Your task to perform on an android device: install app "Microsoft Authenticator" Image 0: 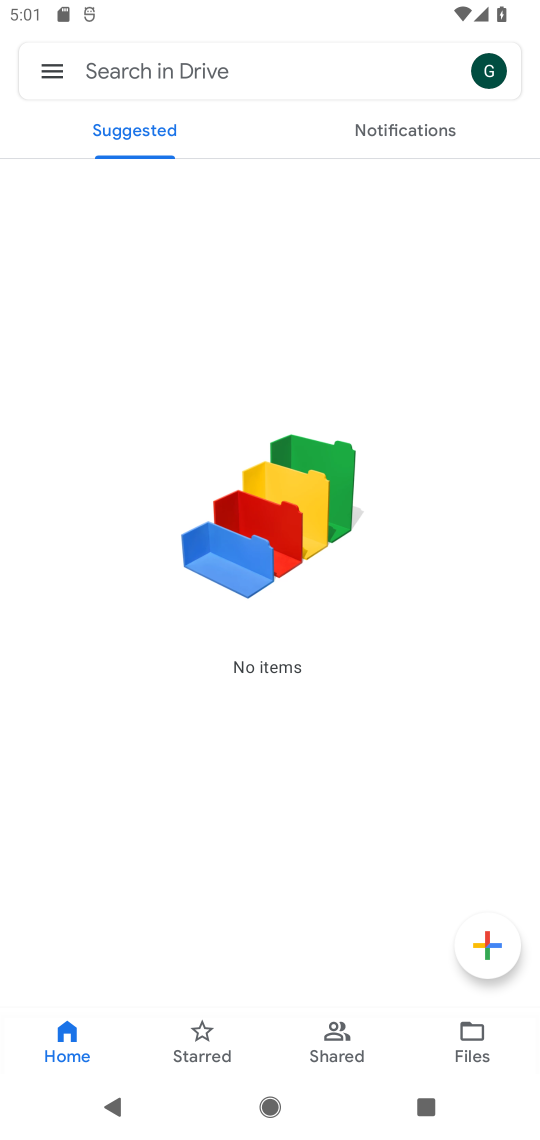
Step 0: press home button
Your task to perform on an android device: install app "Microsoft Authenticator" Image 1: 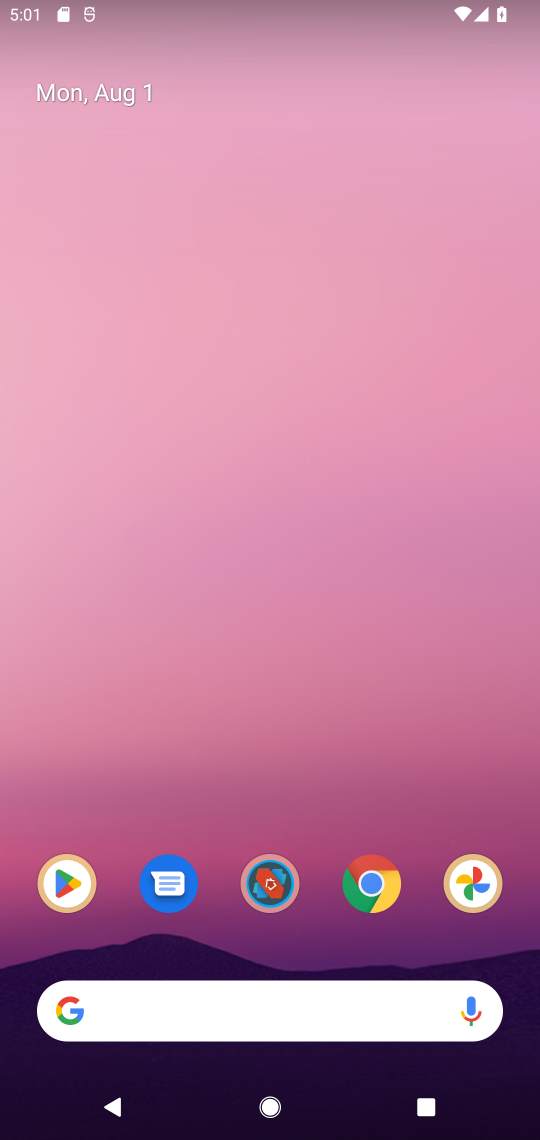
Step 1: drag from (231, 845) to (233, 703)
Your task to perform on an android device: install app "Microsoft Authenticator" Image 2: 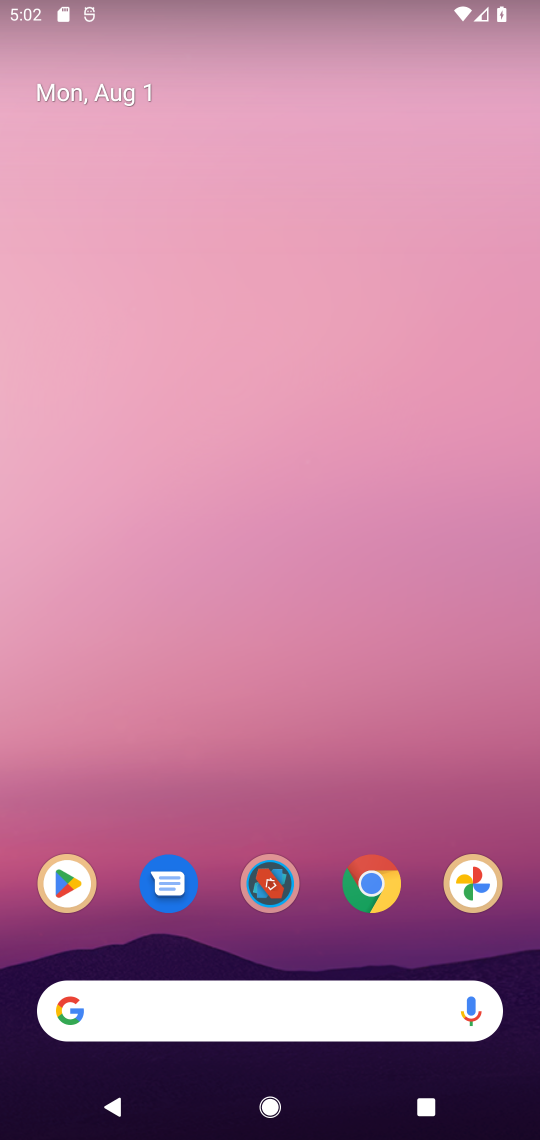
Step 2: drag from (187, 956) to (187, 248)
Your task to perform on an android device: install app "Microsoft Authenticator" Image 3: 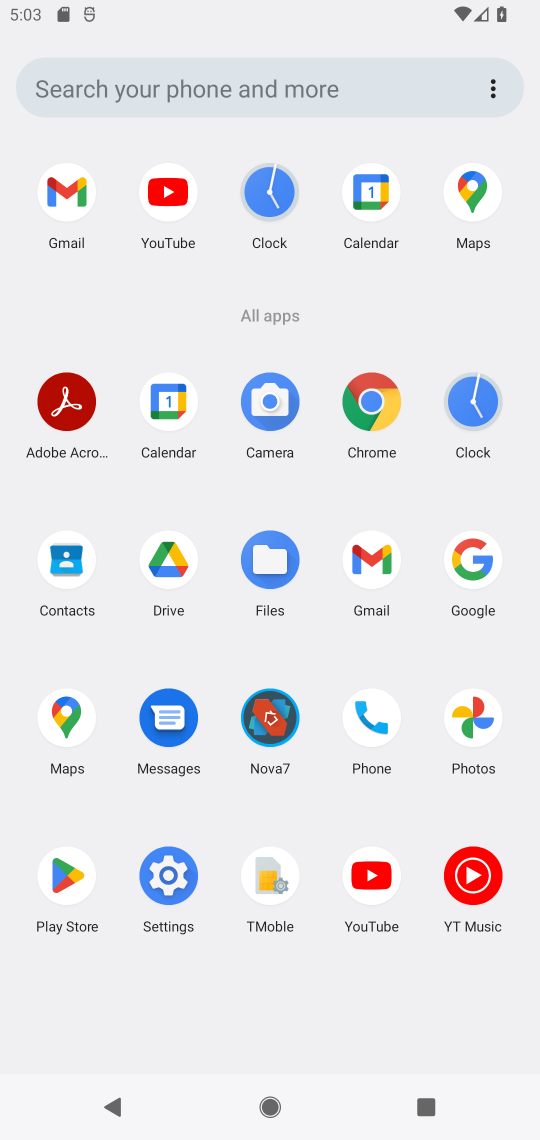
Step 3: click (63, 861)
Your task to perform on an android device: install app "Microsoft Authenticator" Image 4: 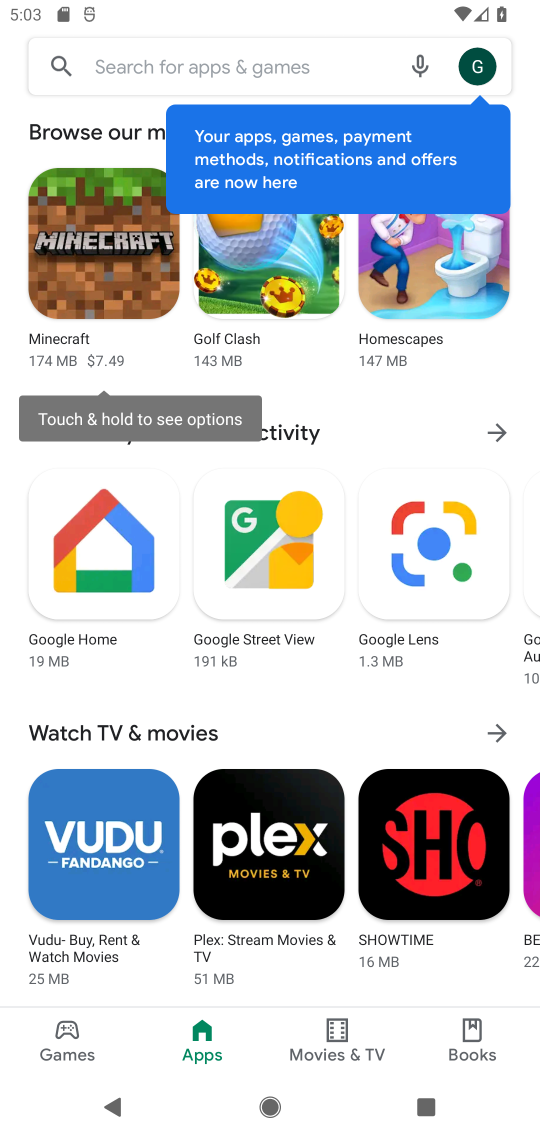
Step 4: click (107, 63)
Your task to perform on an android device: install app "Microsoft Authenticator" Image 5: 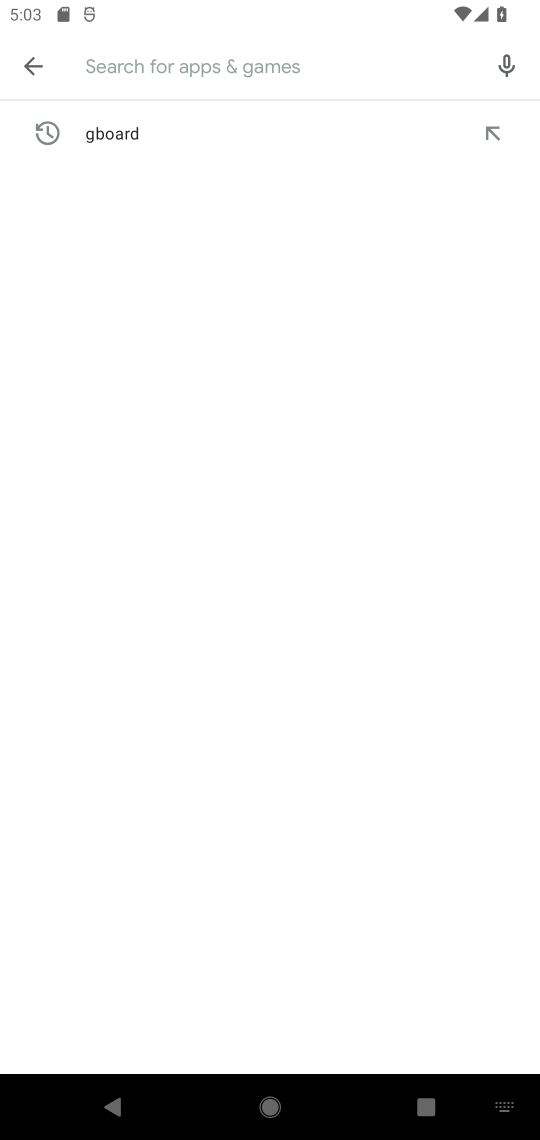
Step 5: type "Microsoft Authenticator"
Your task to perform on an android device: install app "Microsoft Authenticator" Image 6: 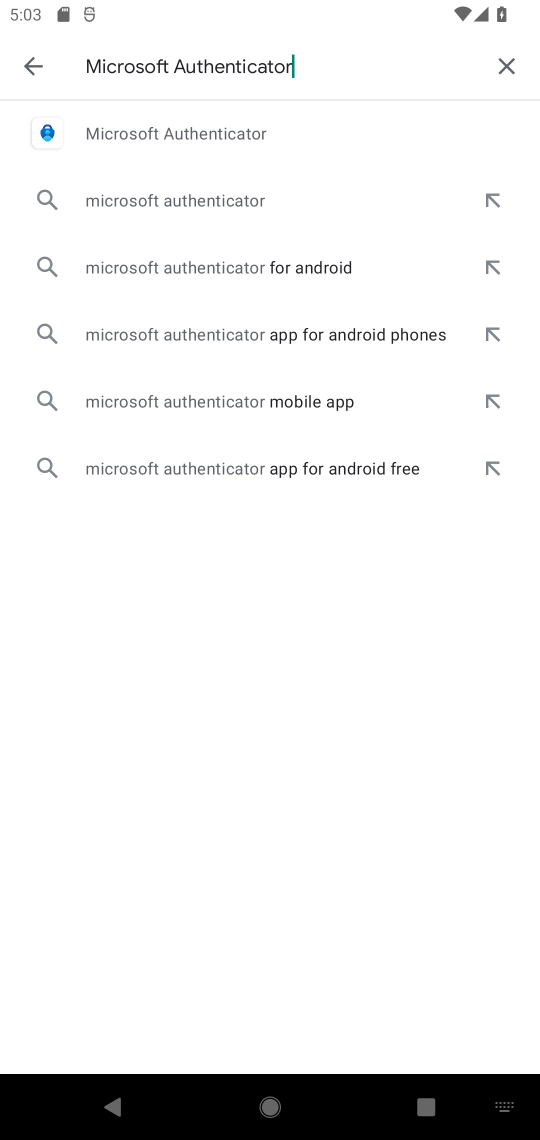
Step 6: click (172, 132)
Your task to perform on an android device: install app "Microsoft Authenticator" Image 7: 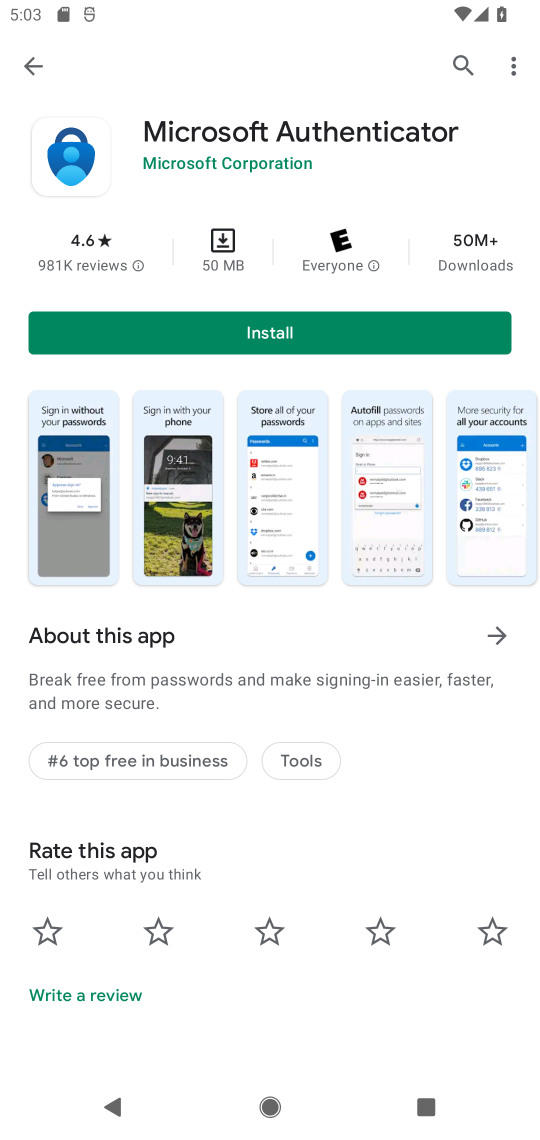
Step 7: click (230, 329)
Your task to perform on an android device: install app "Microsoft Authenticator" Image 8: 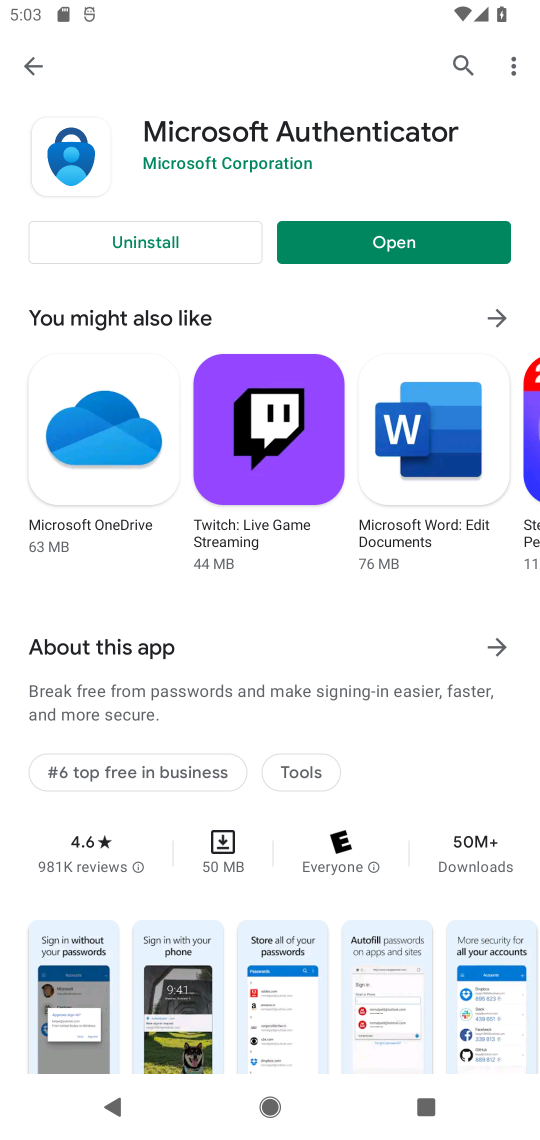
Step 8: click (374, 229)
Your task to perform on an android device: install app "Microsoft Authenticator" Image 9: 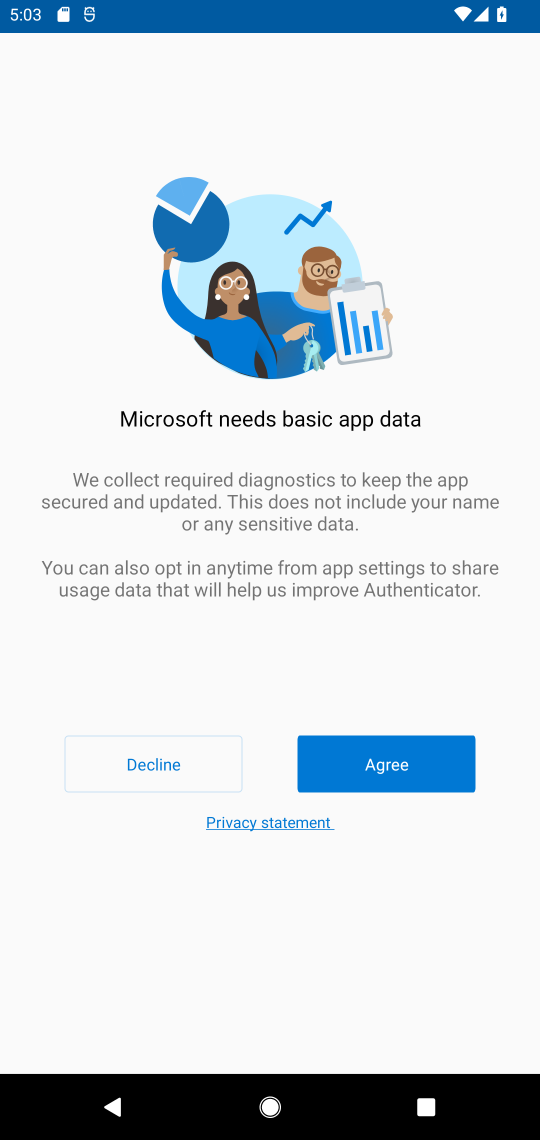
Step 9: task complete